Your task to perform on an android device: check battery use Image 0: 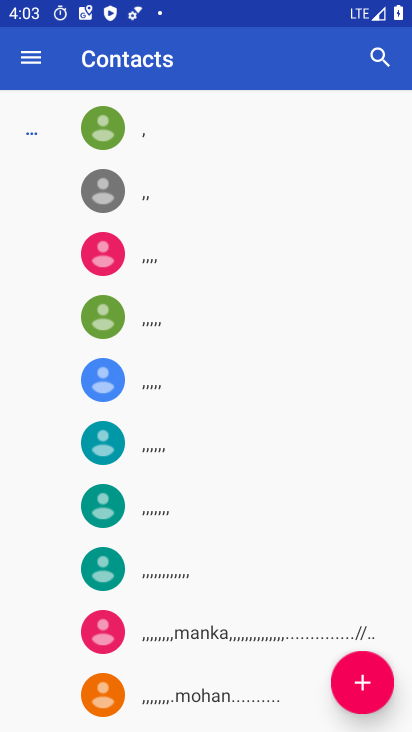
Step 0: press home button
Your task to perform on an android device: check battery use Image 1: 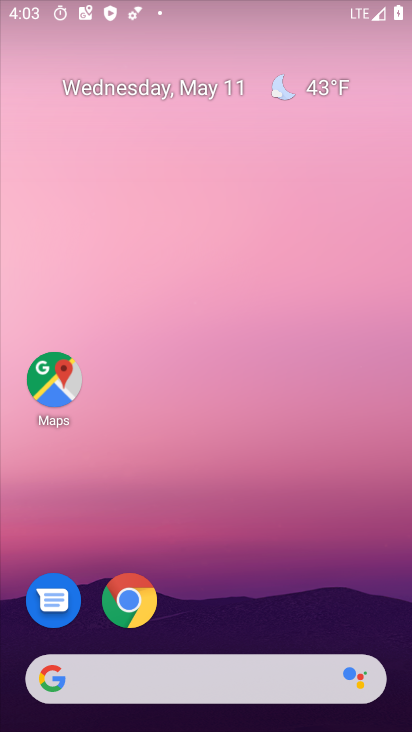
Step 1: drag from (297, 635) to (312, 27)
Your task to perform on an android device: check battery use Image 2: 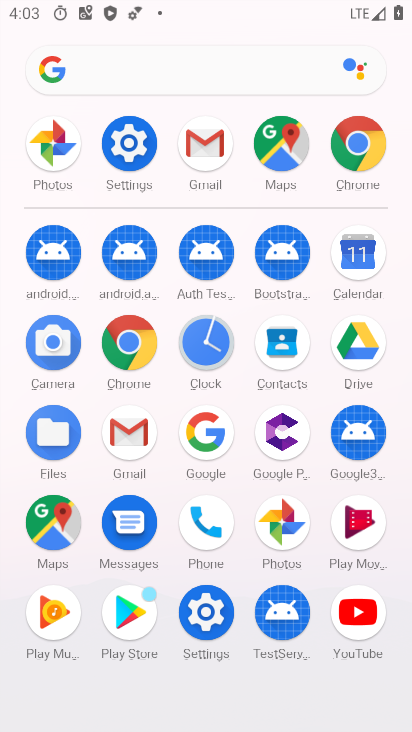
Step 2: click (117, 153)
Your task to perform on an android device: check battery use Image 3: 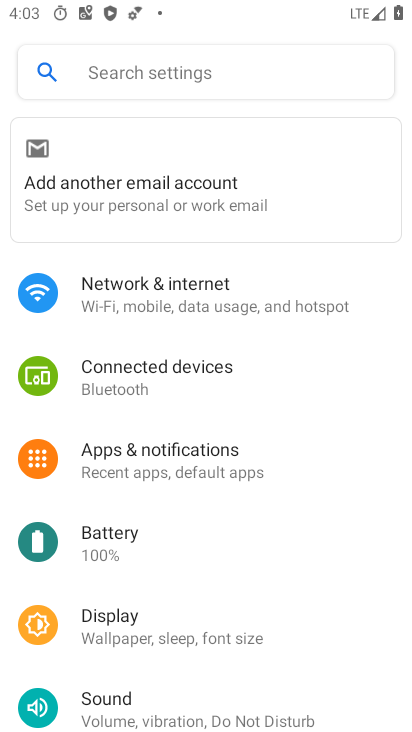
Step 3: click (85, 551)
Your task to perform on an android device: check battery use Image 4: 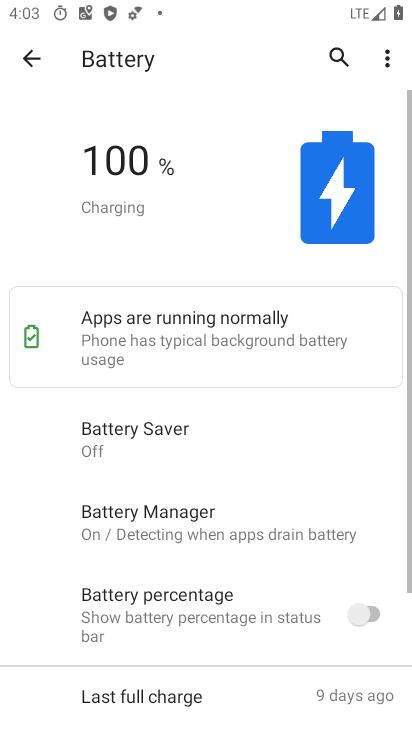
Step 4: click (389, 64)
Your task to perform on an android device: check battery use Image 5: 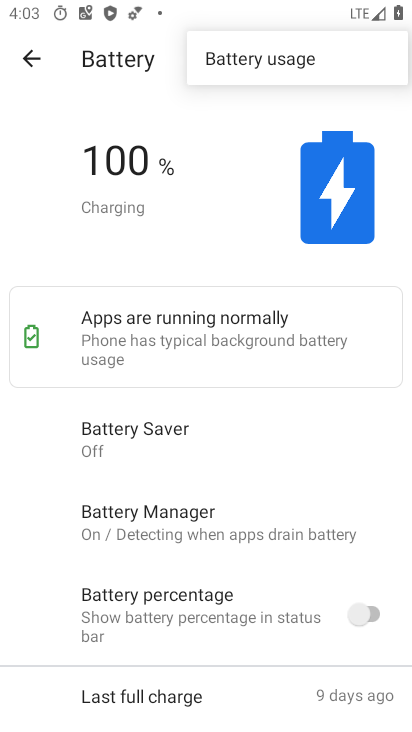
Step 5: click (302, 66)
Your task to perform on an android device: check battery use Image 6: 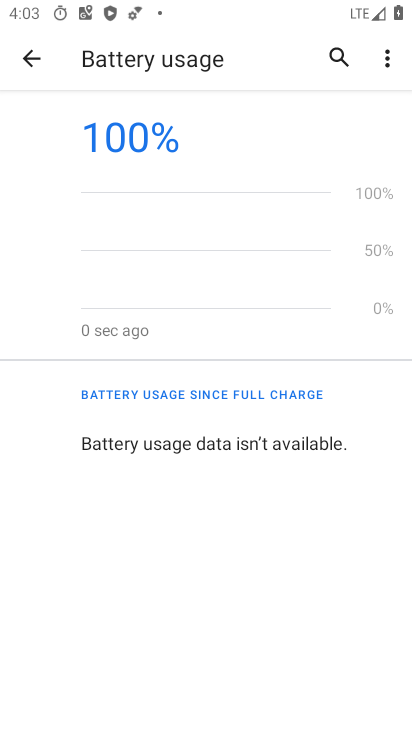
Step 6: task complete